Your task to perform on an android device: turn notification dots on Image 0: 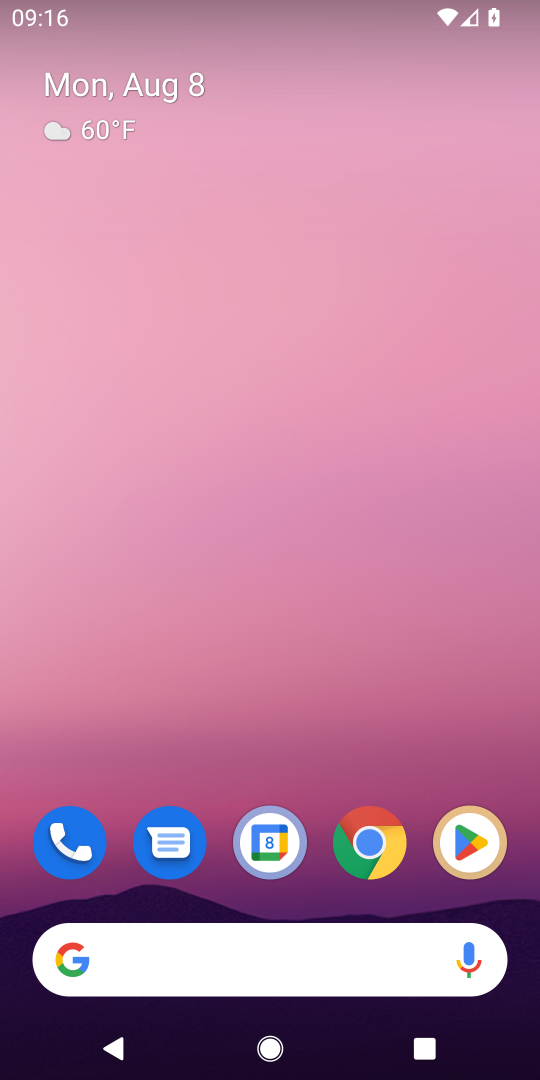
Step 0: drag from (246, 733) to (301, 33)
Your task to perform on an android device: turn notification dots on Image 1: 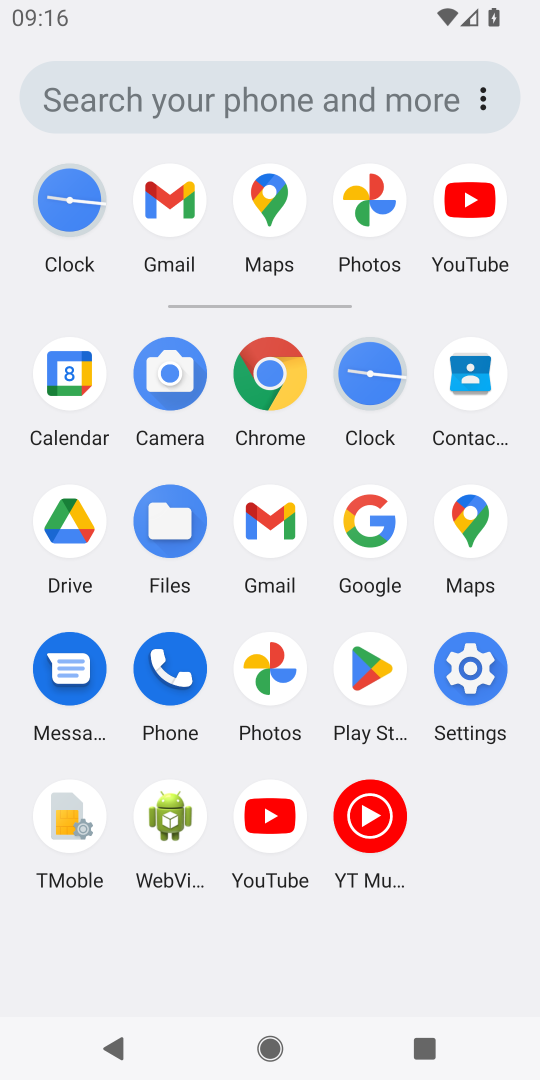
Step 1: click (475, 691)
Your task to perform on an android device: turn notification dots on Image 2: 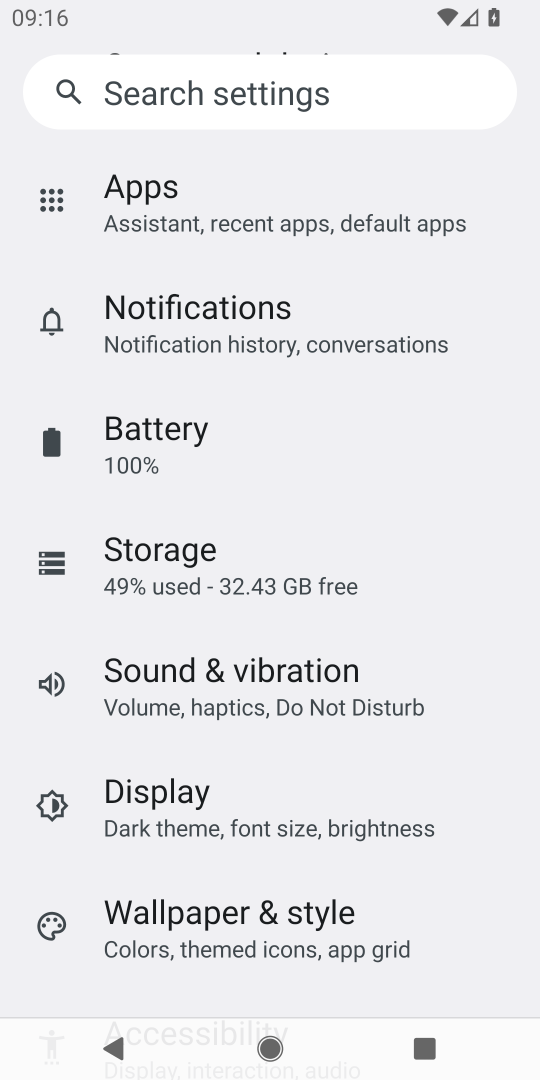
Step 2: click (262, 334)
Your task to perform on an android device: turn notification dots on Image 3: 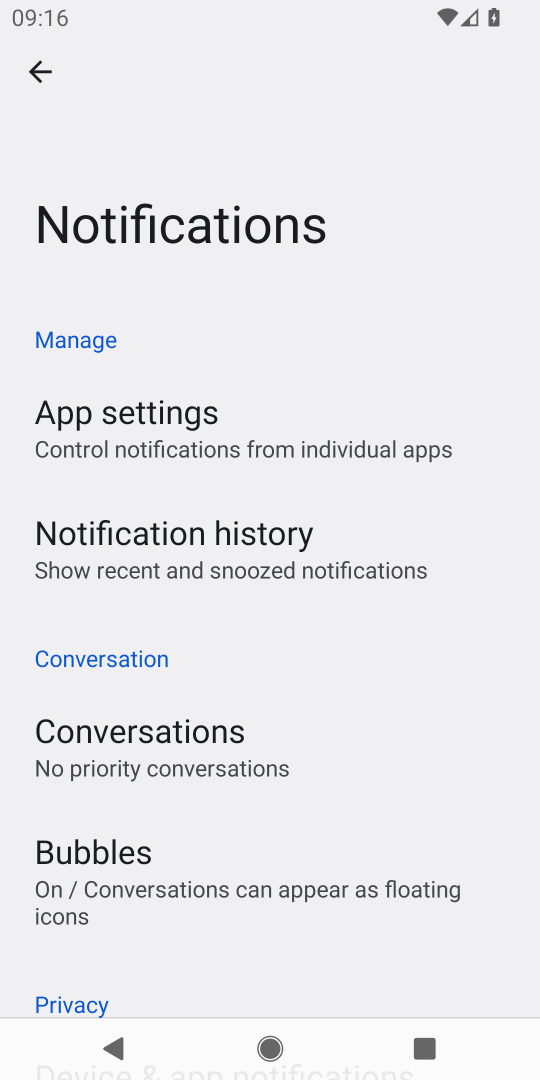
Step 3: drag from (171, 915) to (150, 299)
Your task to perform on an android device: turn notification dots on Image 4: 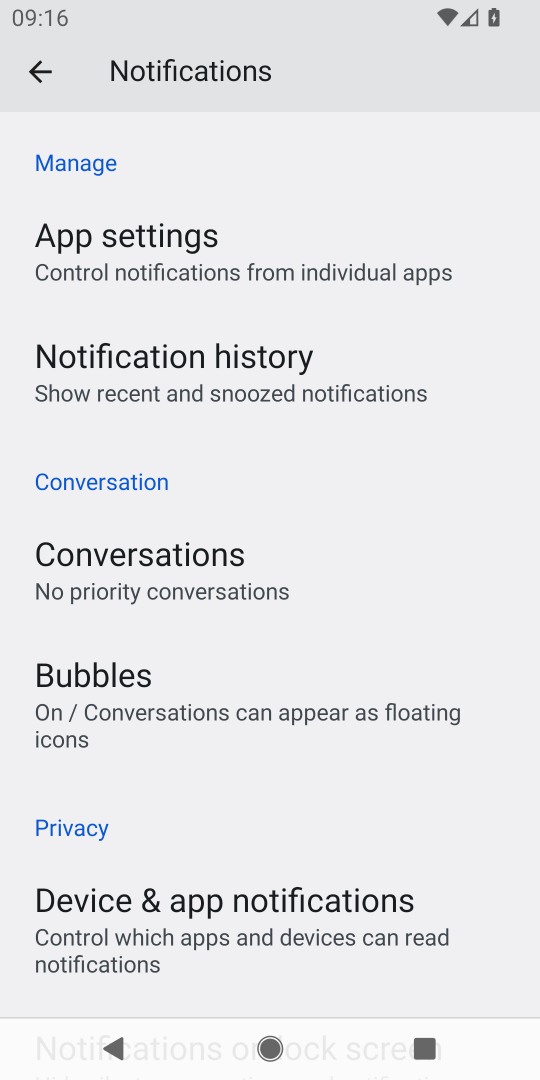
Step 4: drag from (239, 828) to (237, 271)
Your task to perform on an android device: turn notification dots on Image 5: 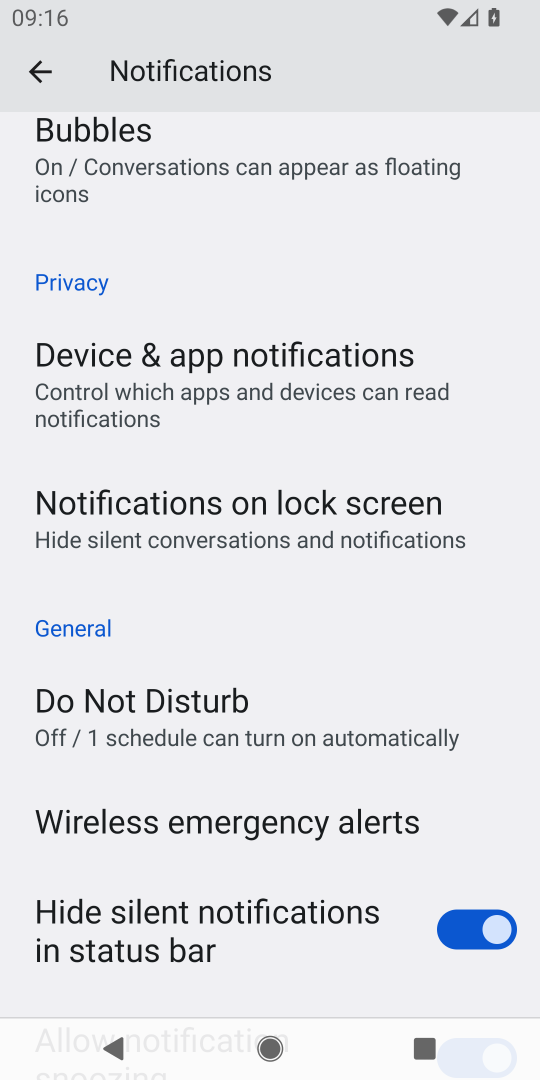
Step 5: drag from (238, 609) to (217, 292)
Your task to perform on an android device: turn notification dots on Image 6: 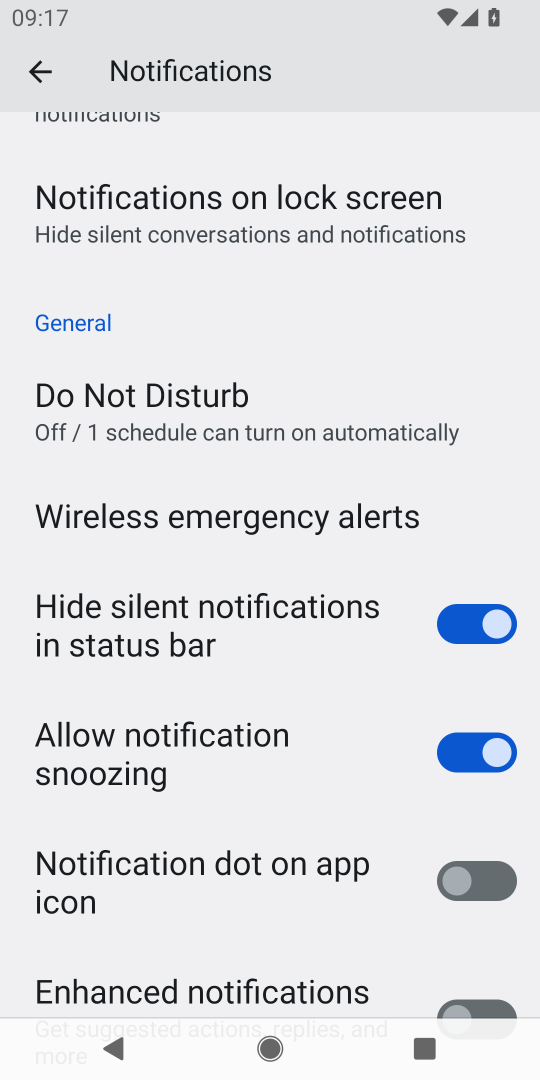
Step 6: click (501, 891)
Your task to perform on an android device: turn notification dots on Image 7: 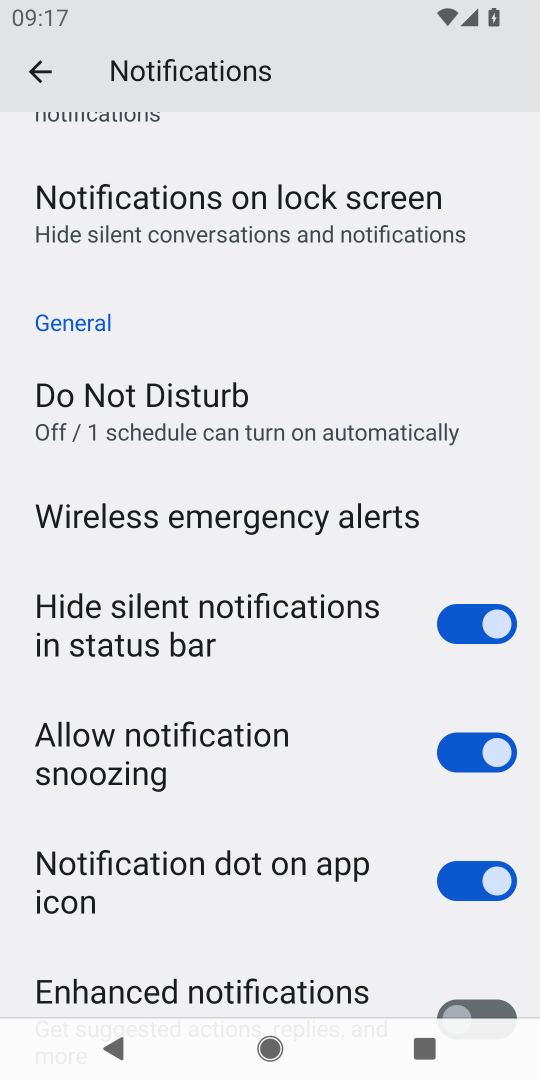
Step 7: task complete